Your task to perform on an android device: Go to accessibility settings Image 0: 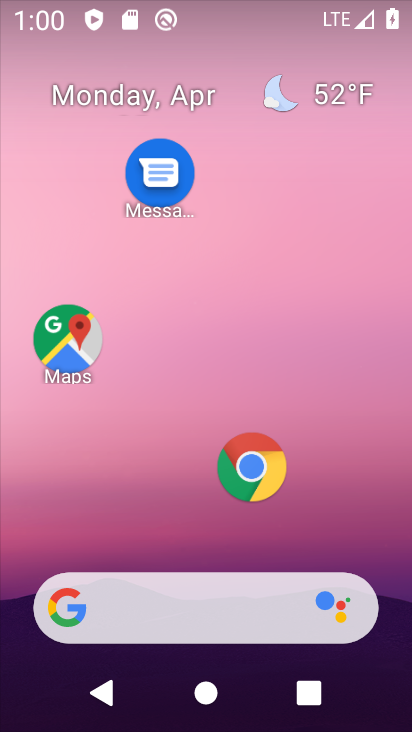
Step 0: drag from (182, 516) to (198, 163)
Your task to perform on an android device: Go to accessibility settings Image 1: 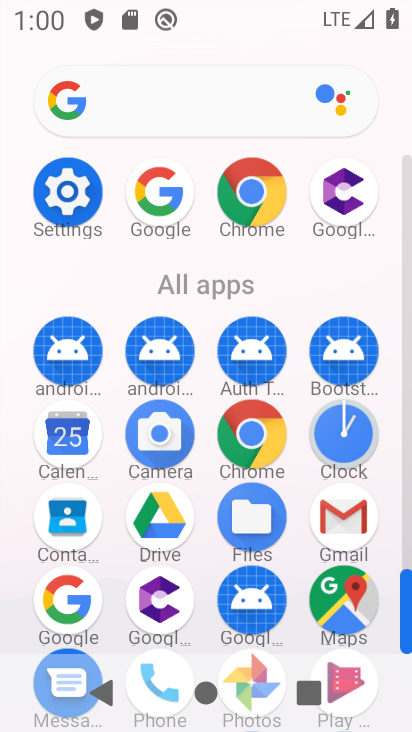
Step 1: click (86, 173)
Your task to perform on an android device: Go to accessibility settings Image 2: 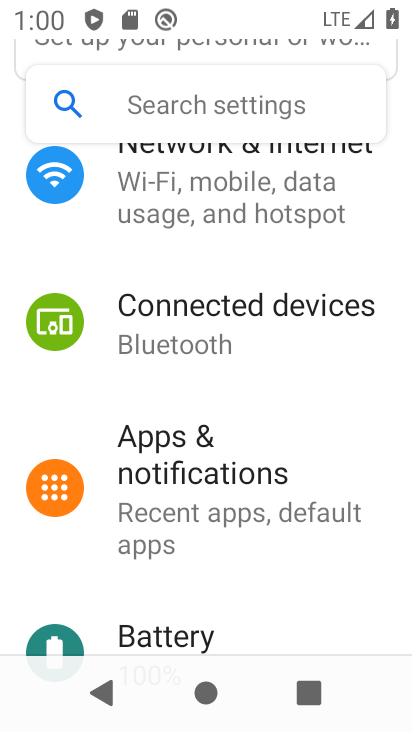
Step 2: drag from (236, 565) to (269, 226)
Your task to perform on an android device: Go to accessibility settings Image 3: 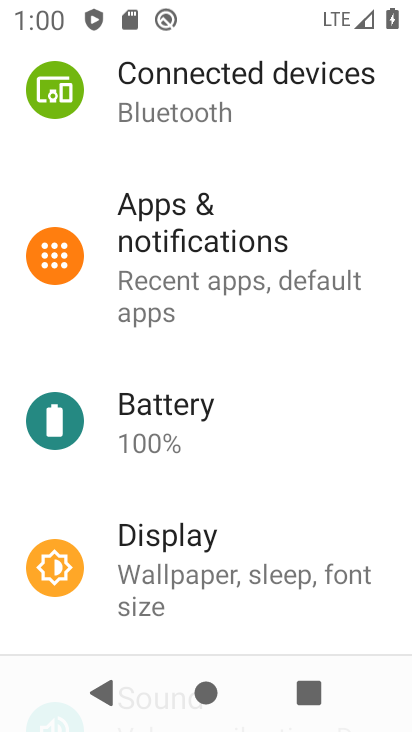
Step 3: drag from (264, 513) to (293, 302)
Your task to perform on an android device: Go to accessibility settings Image 4: 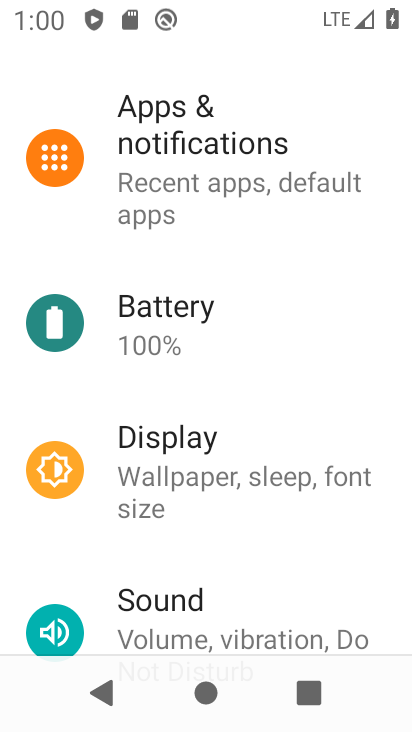
Step 4: drag from (255, 527) to (258, 294)
Your task to perform on an android device: Go to accessibility settings Image 5: 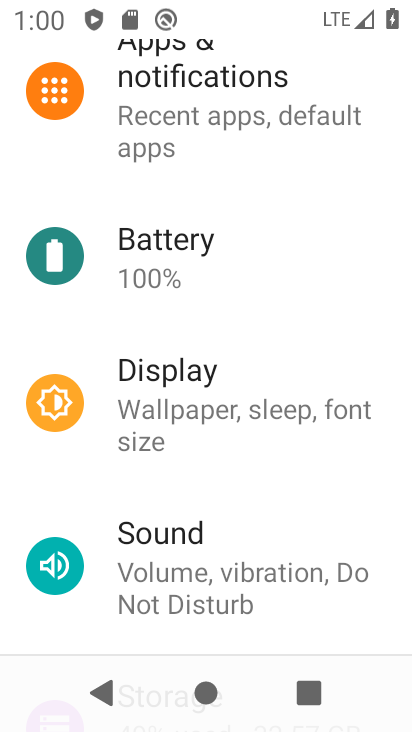
Step 5: drag from (250, 522) to (266, 217)
Your task to perform on an android device: Go to accessibility settings Image 6: 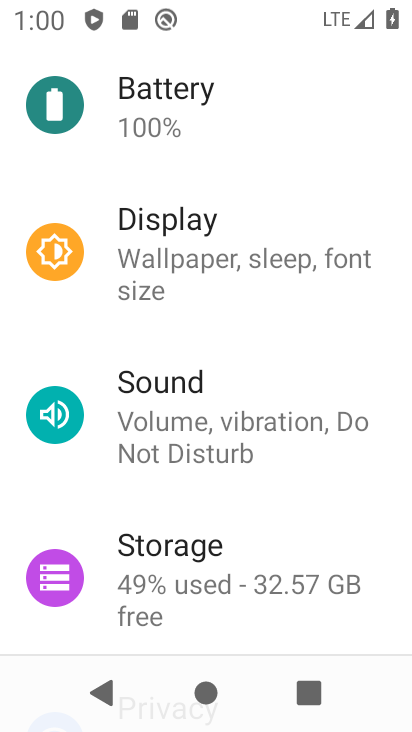
Step 6: drag from (255, 533) to (283, 164)
Your task to perform on an android device: Go to accessibility settings Image 7: 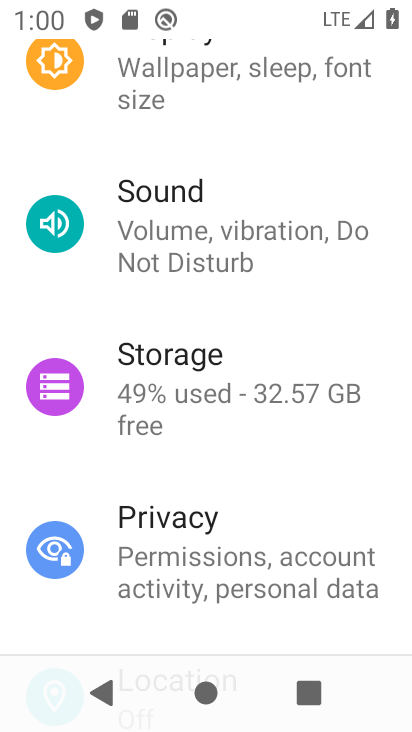
Step 7: drag from (253, 418) to (277, 244)
Your task to perform on an android device: Go to accessibility settings Image 8: 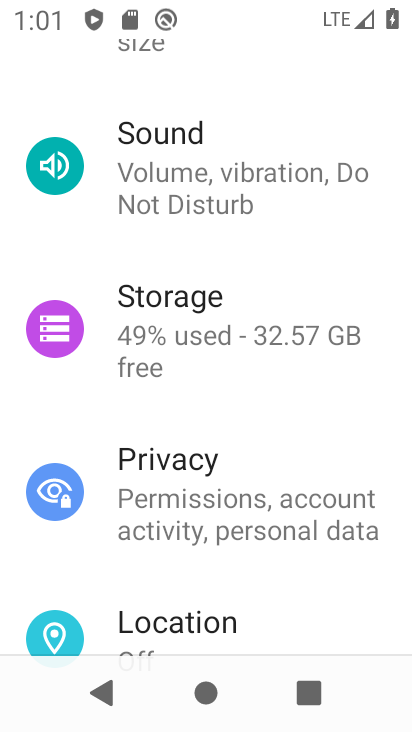
Step 8: drag from (217, 465) to (253, 270)
Your task to perform on an android device: Go to accessibility settings Image 9: 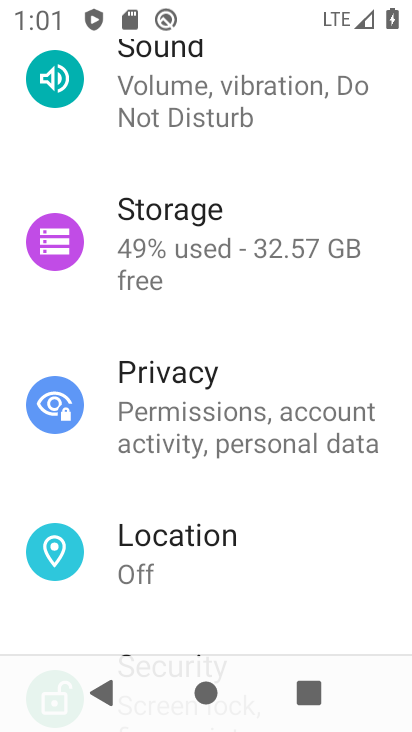
Step 9: drag from (237, 535) to (286, 296)
Your task to perform on an android device: Go to accessibility settings Image 10: 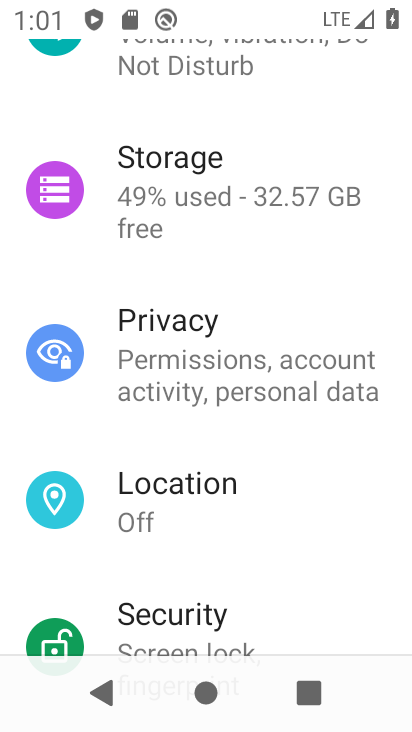
Step 10: drag from (252, 579) to (277, 287)
Your task to perform on an android device: Go to accessibility settings Image 11: 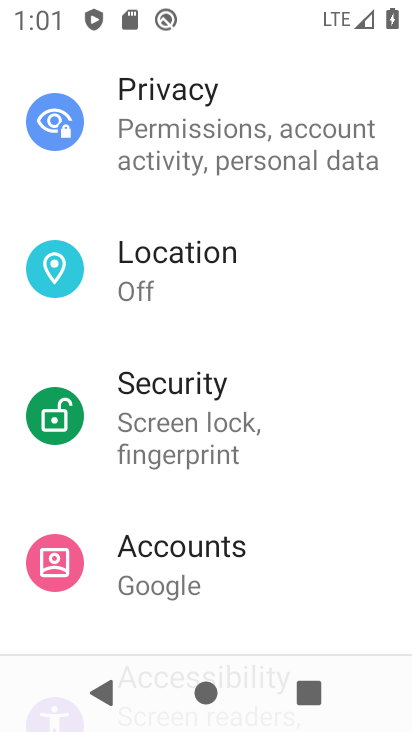
Step 11: drag from (260, 492) to (285, 271)
Your task to perform on an android device: Go to accessibility settings Image 12: 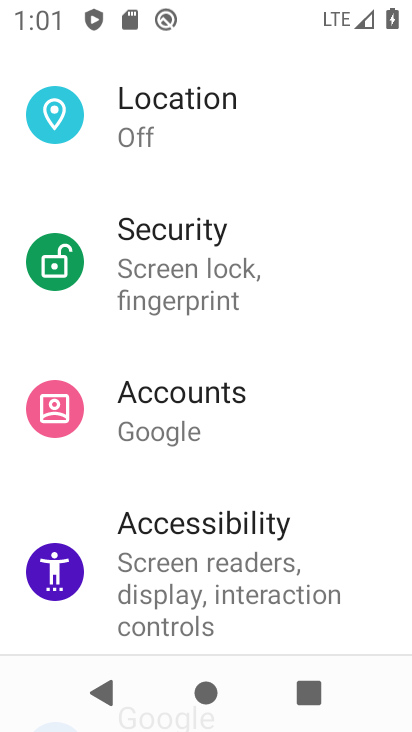
Step 12: click (219, 522)
Your task to perform on an android device: Go to accessibility settings Image 13: 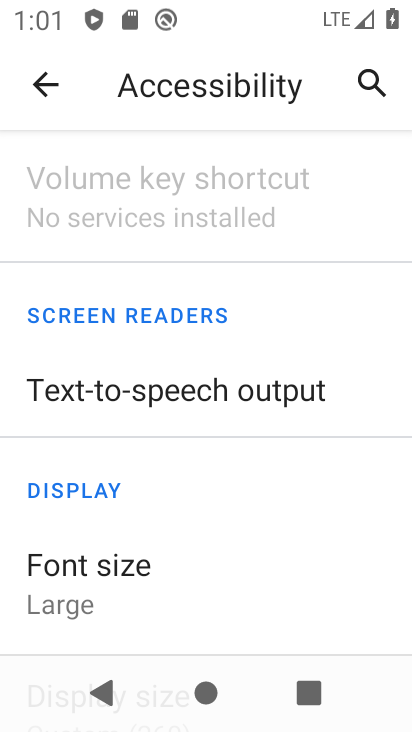
Step 13: task complete